Your task to perform on an android device: Search for pizza restaurants on Maps Image 0: 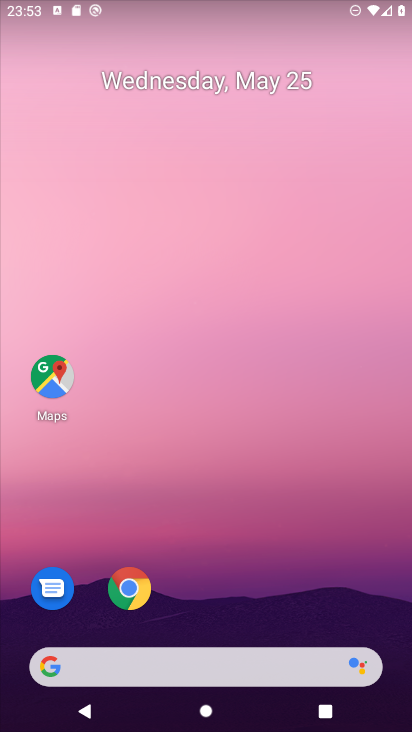
Step 0: click (50, 373)
Your task to perform on an android device: Search for pizza restaurants on Maps Image 1: 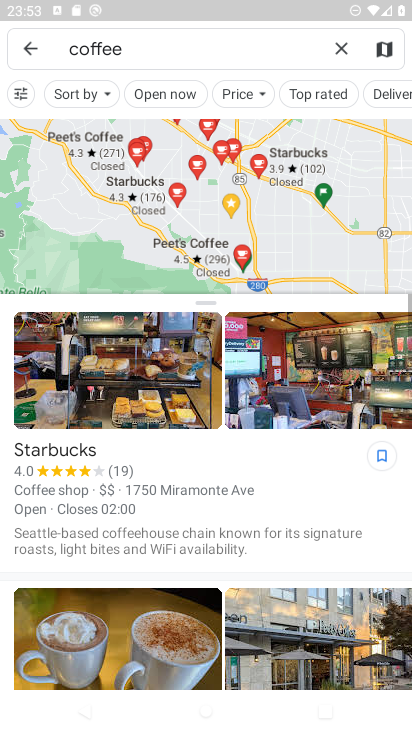
Step 1: click (338, 48)
Your task to perform on an android device: Search for pizza restaurants on Maps Image 2: 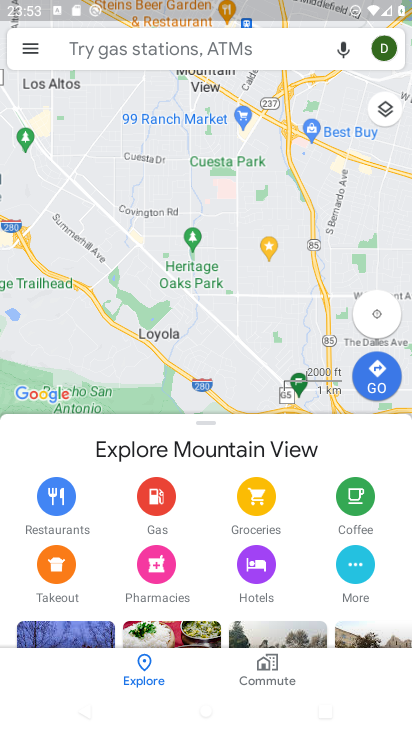
Step 2: click (140, 57)
Your task to perform on an android device: Search for pizza restaurants on Maps Image 3: 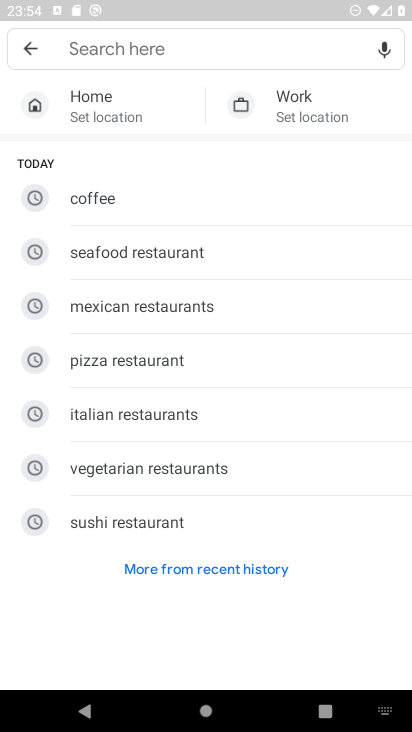
Step 3: click (127, 360)
Your task to perform on an android device: Search for pizza restaurants on Maps Image 4: 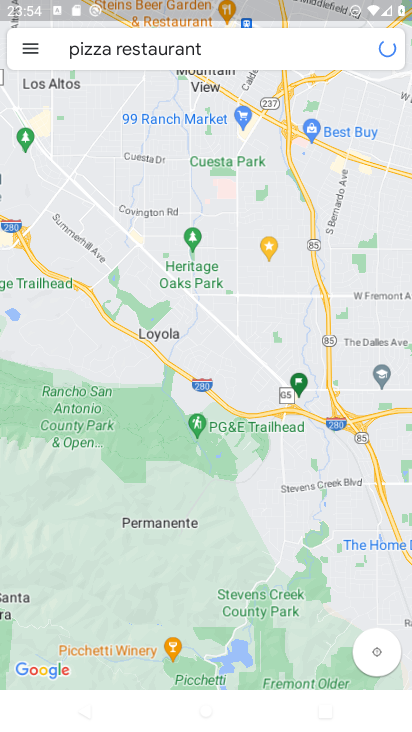
Step 4: task complete